Your task to perform on an android device: How do I get to the nearest Nordstrom? Image 0: 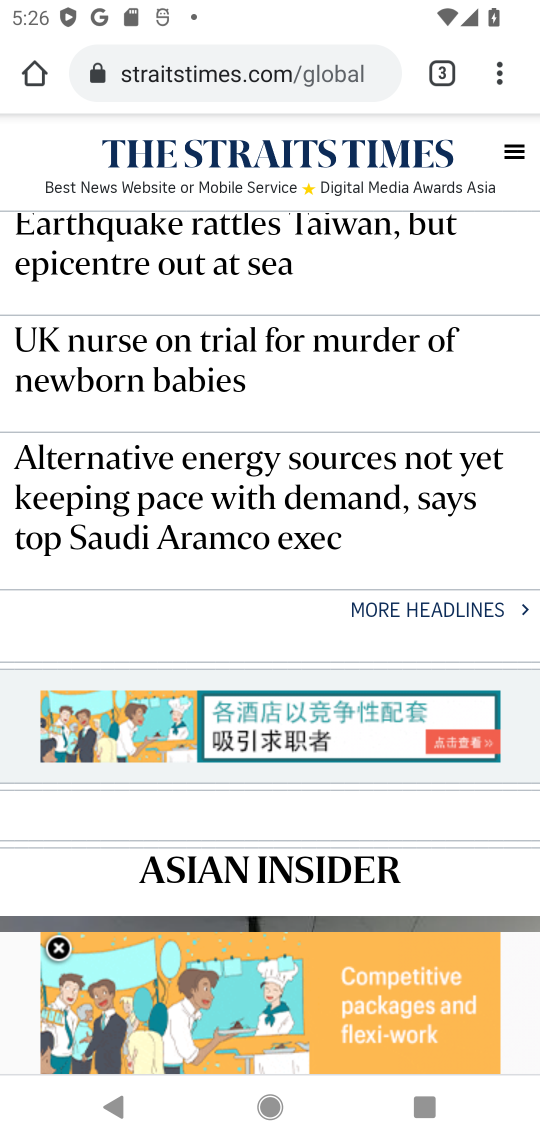
Step 0: press back button
Your task to perform on an android device: How do I get to the nearest Nordstrom? Image 1: 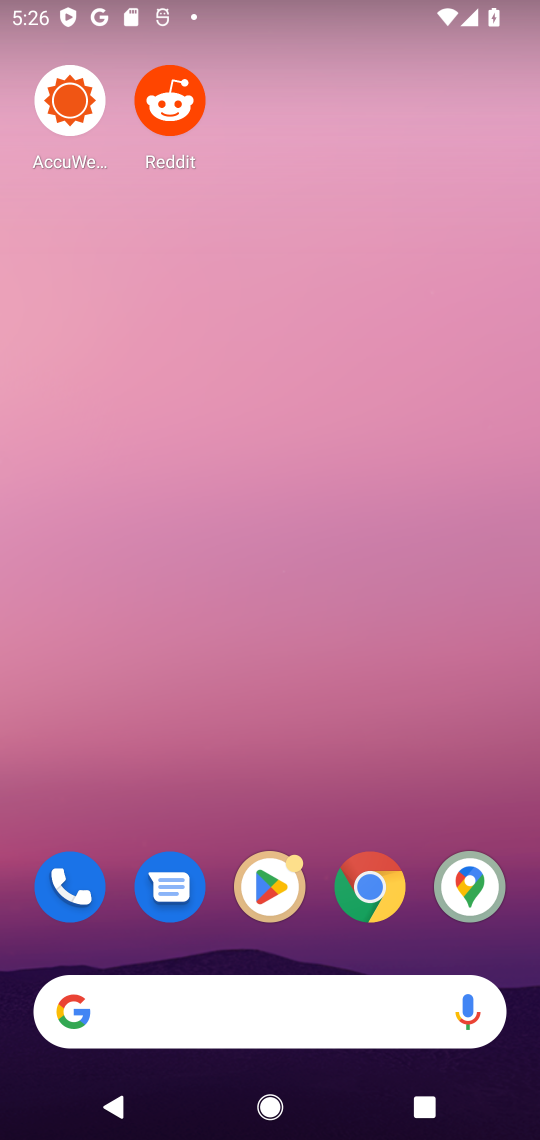
Step 1: click (299, 1019)
Your task to perform on an android device: How do I get to the nearest Nordstrom? Image 2: 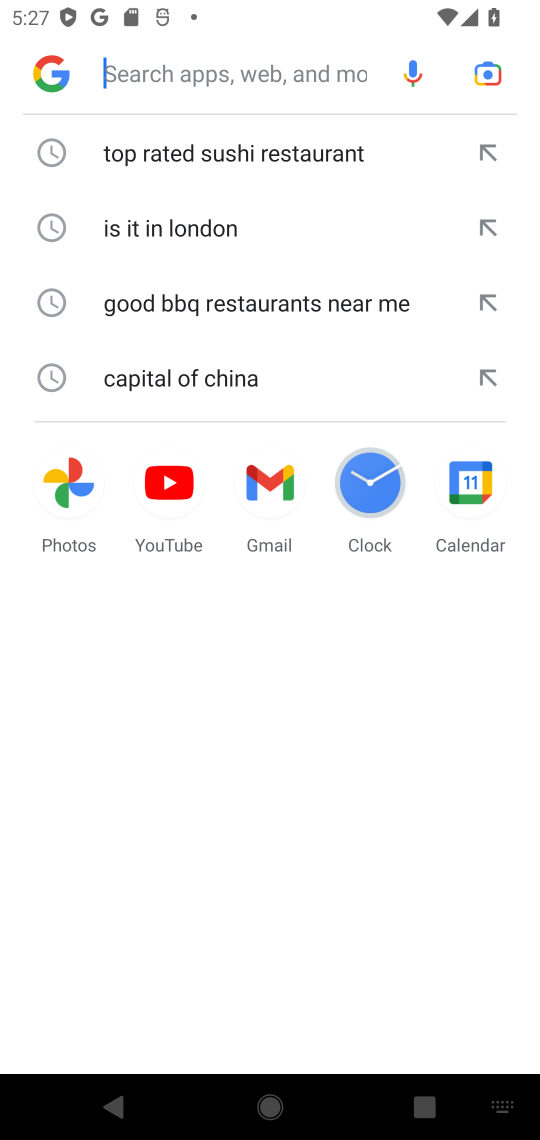
Step 2: type "How do I get to the nearest Nordstrom?"
Your task to perform on an android device: How do I get to the nearest Nordstrom? Image 3: 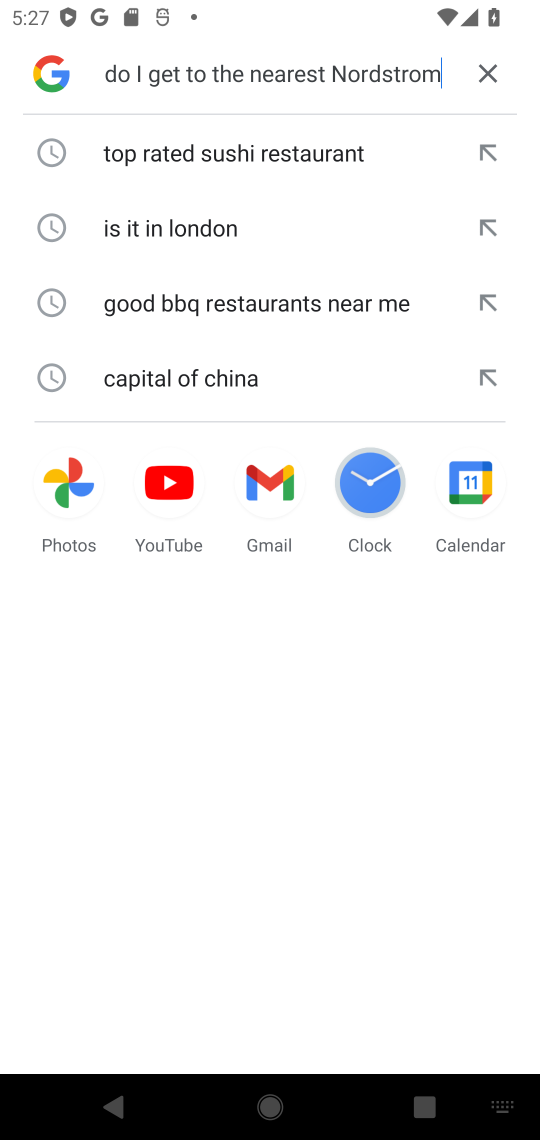
Step 3: type ""
Your task to perform on an android device: How do I get to the nearest Nordstrom? Image 4: 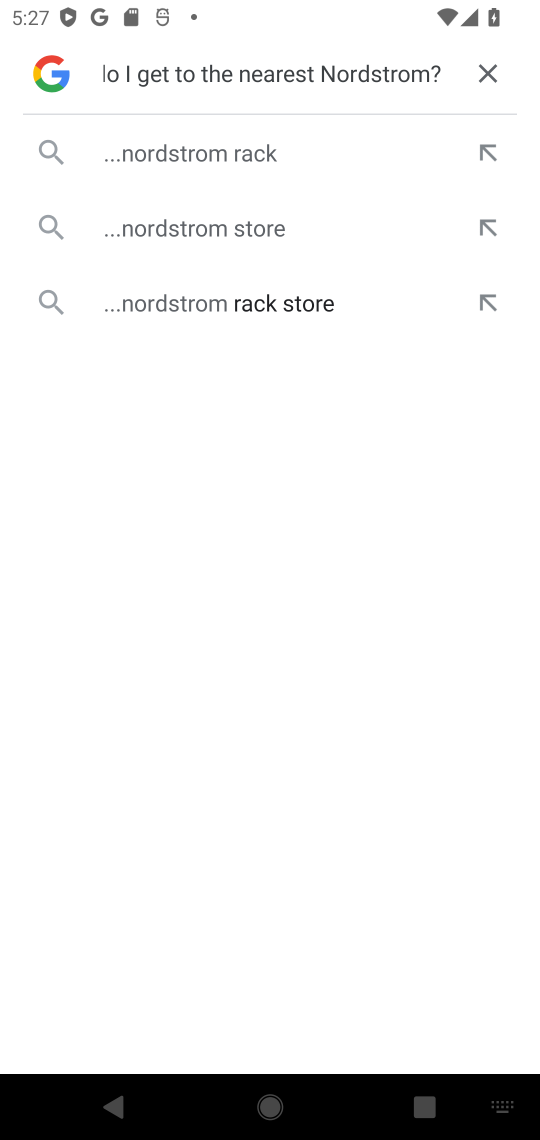
Step 4: press enter
Your task to perform on an android device: How do I get to the nearest Nordstrom? Image 5: 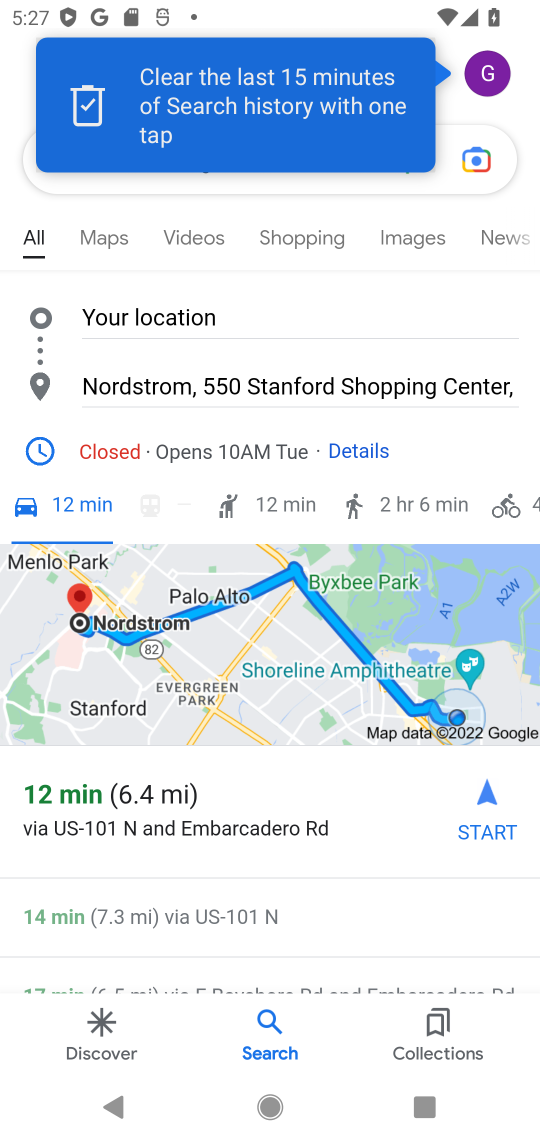
Step 5: task complete